Your task to perform on an android device: change the clock display to digital Image 0: 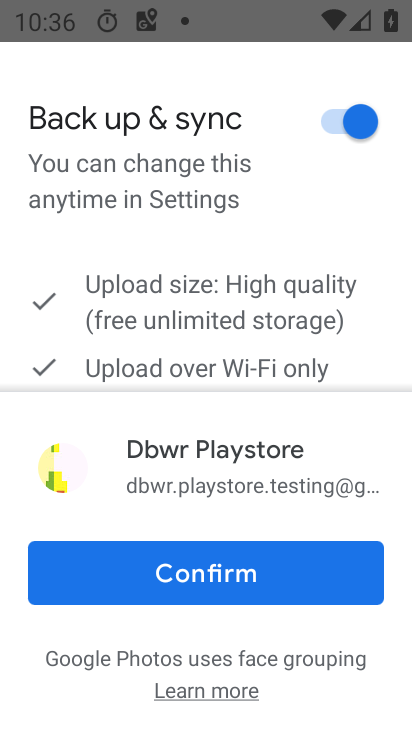
Step 0: press home button
Your task to perform on an android device: change the clock display to digital Image 1: 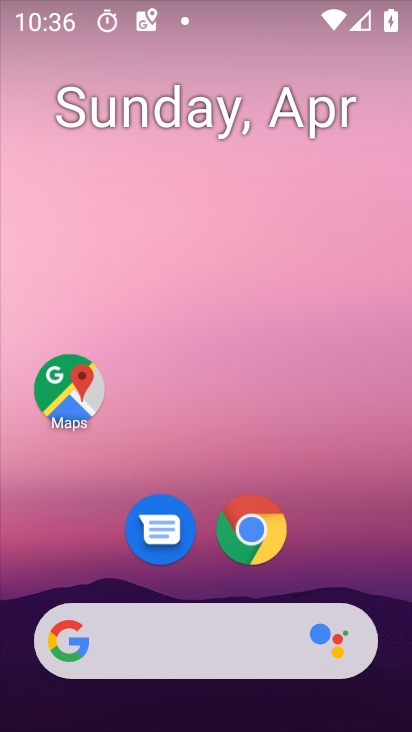
Step 1: drag from (206, 411) to (234, 152)
Your task to perform on an android device: change the clock display to digital Image 2: 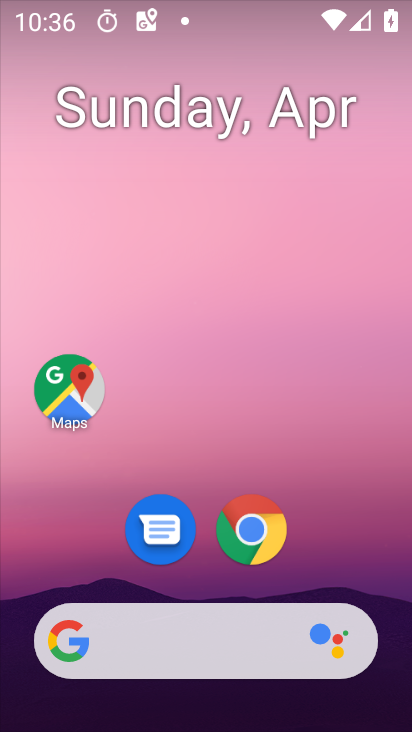
Step 2: drag from (217, 449) to (309, 74)
Your task to perform on an android device: change the clock display to digital Image 3: 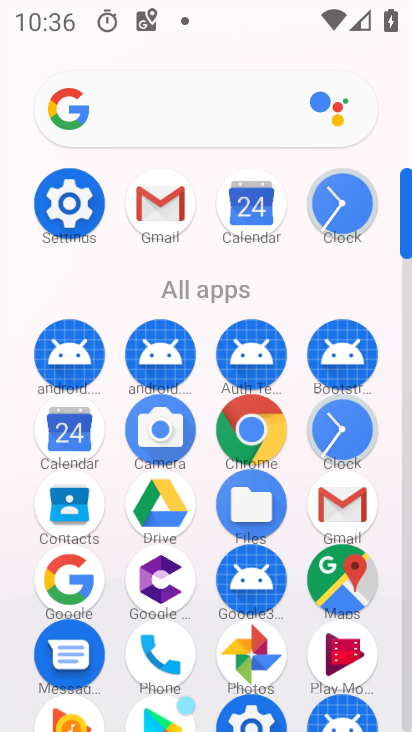
Step 3: click (344, 179)
Your task to perform on an android device: change the clock display to digital Image 4: 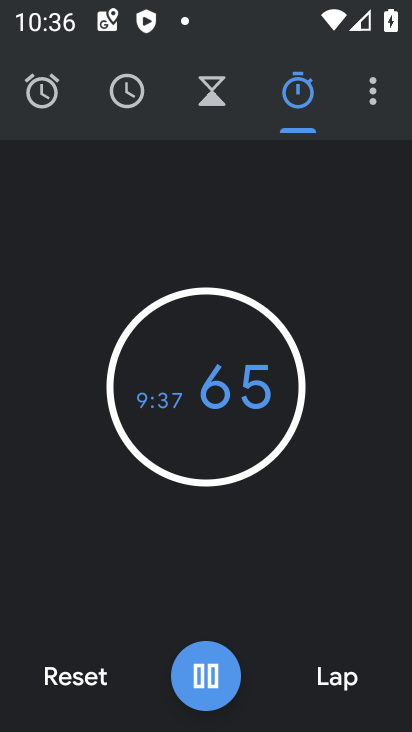
Step 4: click (368, 94)
Your task to perform on an android device: change the clock display to digital Image 5: 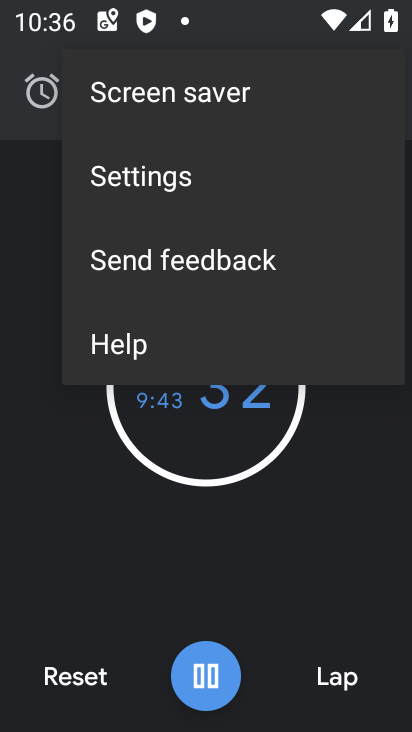
Step 5: click (186, 182)
Your task to perform on an android device: change the clock display to digital Image 6: 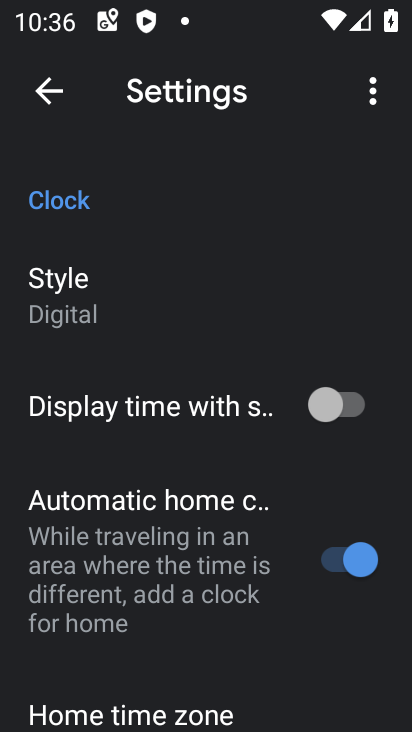
Step 6: task complete